Your task to perform on an android device: turn on location history Image 0: 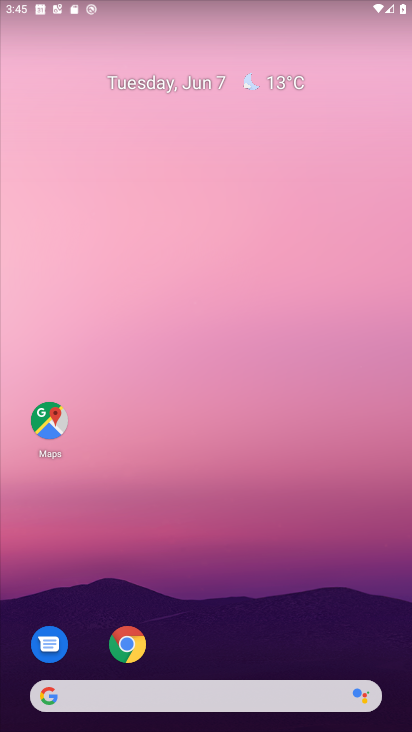
Step 0: drag from (354, 593) to (359, 177)
Your task to perform on an android device: turn on location history Image 1: 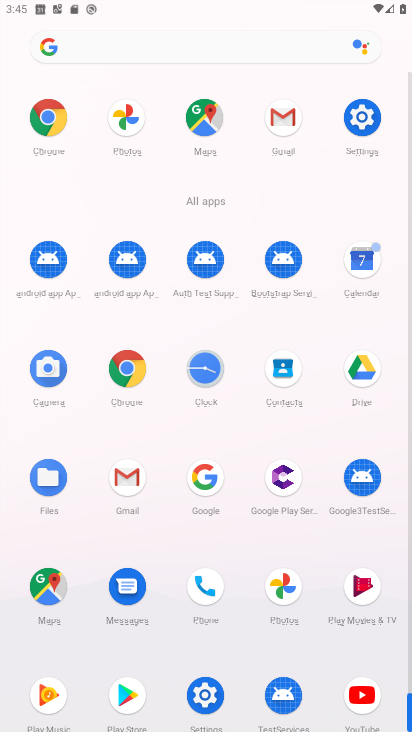
Step 1: click (372, 127)
Your task to perform on an android device: turn on location history Image 2: 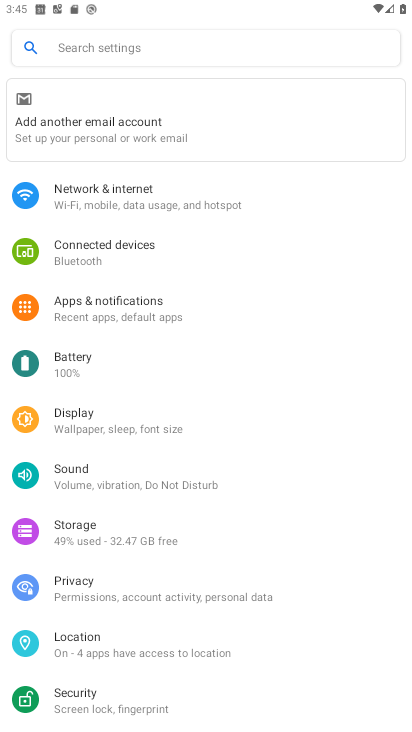
Step 2: drag from (315, 376) to (318, 299)
Your task to perform on an android device: turn on location history Image 3: 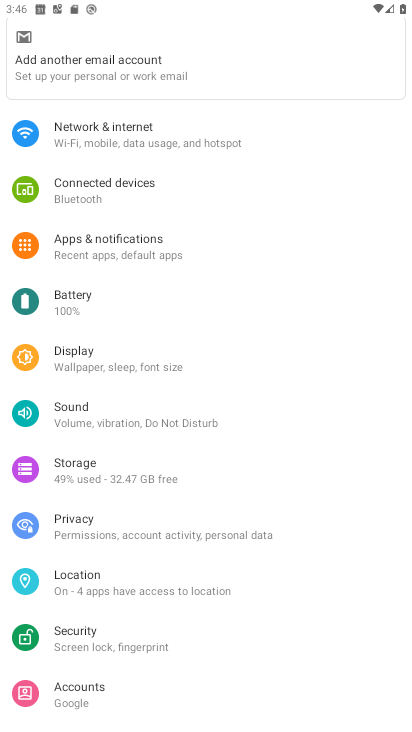
Step 3: drag from (321, 486) to (326, 336)
Your task to perform on an android device: turn on location history Image 4: 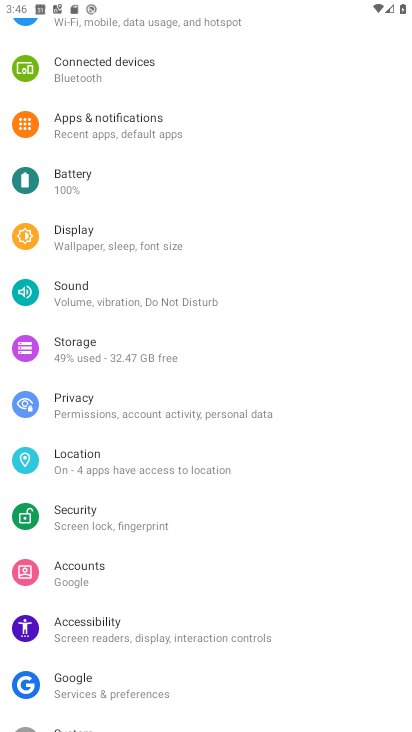
Step 4: drag from (318, 528) to (324, 340)
Your task to perform on an android device: turn on location history Image 5: 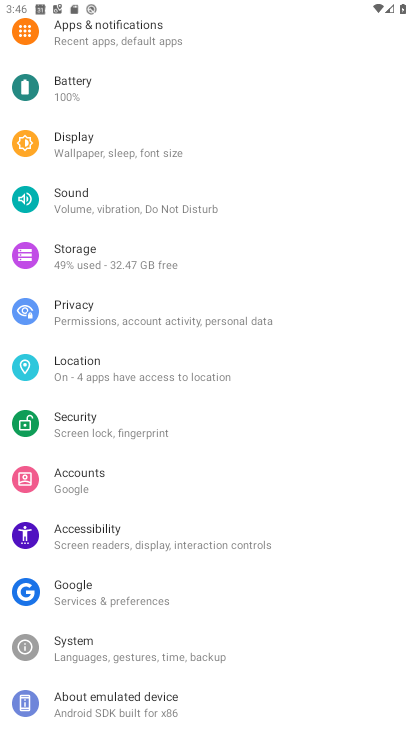
Step 5: drag from (337, 285) to (364, 497)
Your task to perform on an android device: turn on location history Image 6: 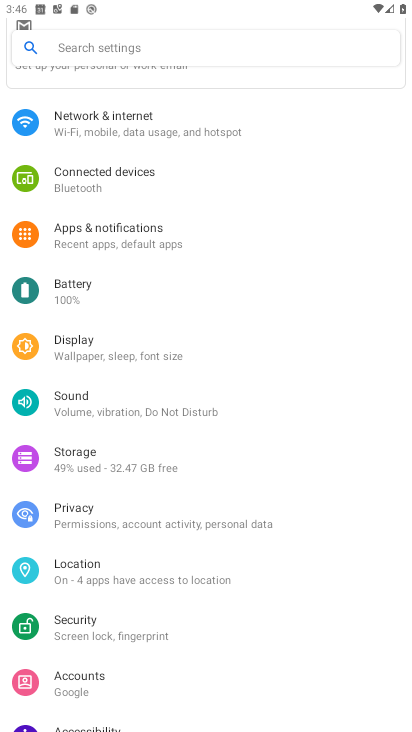
Step 6: drag from (328, 219) to (350, 409)
Your task to perform on an android device: turn on location history Image 7: 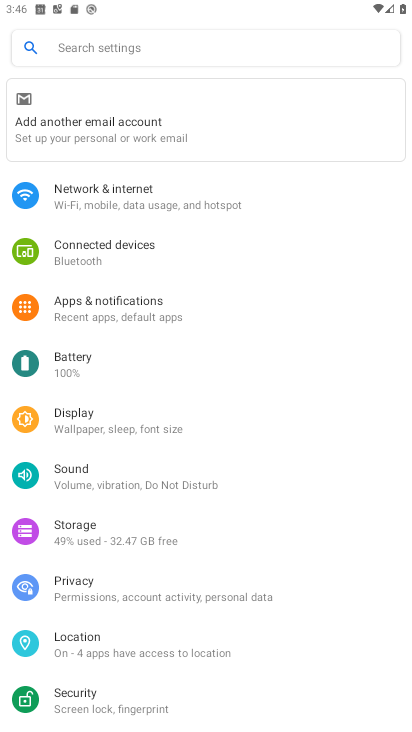
Step 7: drag from (336, 450) to (331, 299)
Your task to perform on an android device: turn on location history Image 8: 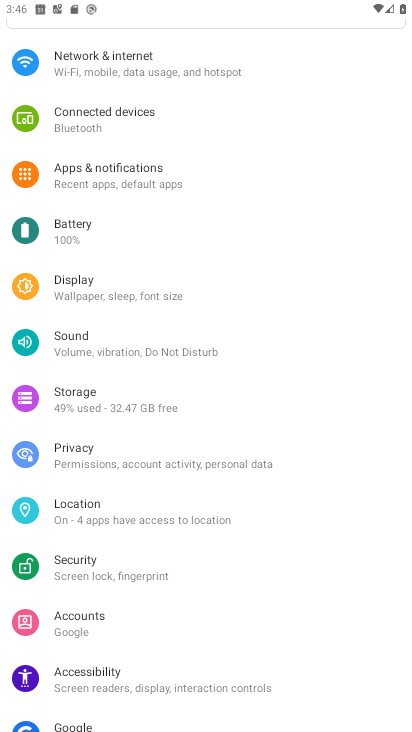
Step 8: drag from (320, 523) to (321, 366)
Your task to perform on an android device: turn on location history Image 9: 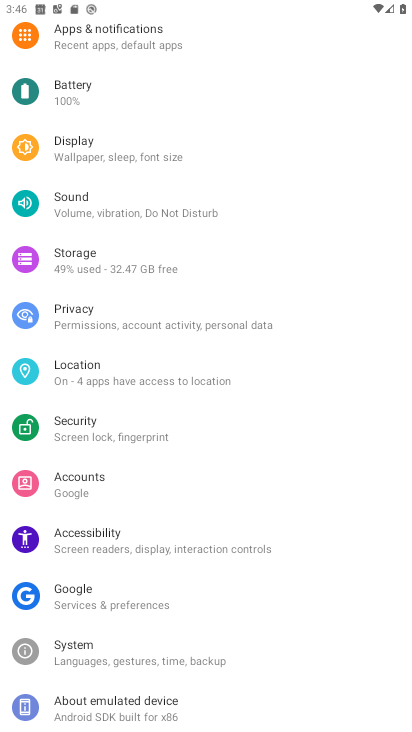
Step 9: click (223, 377)
Your task to perform on an android device: turn on location history Image 10: 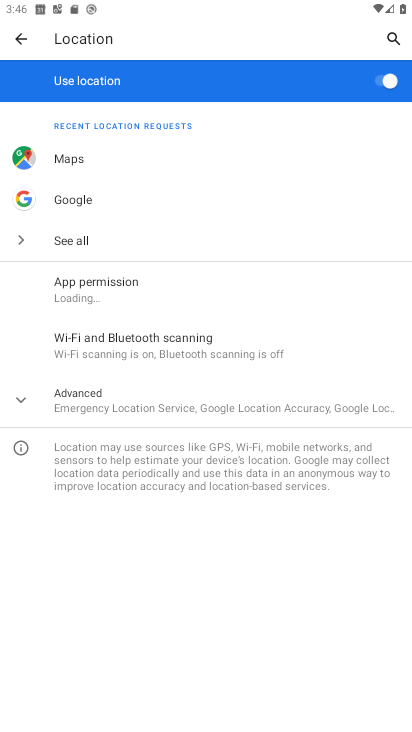
Step 10: drag from (304, 479) to (320, 264)
Your task to perform on an android device: turn on location history Image 11: 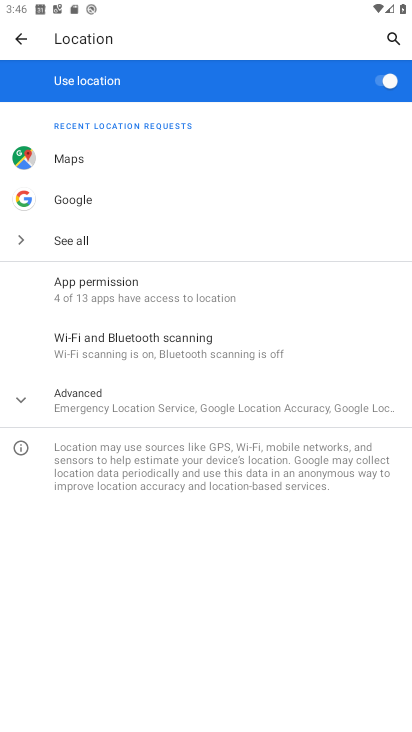
Step 11: click (190, 408)
Your task to perform on an android device: turn on location history Image 12: 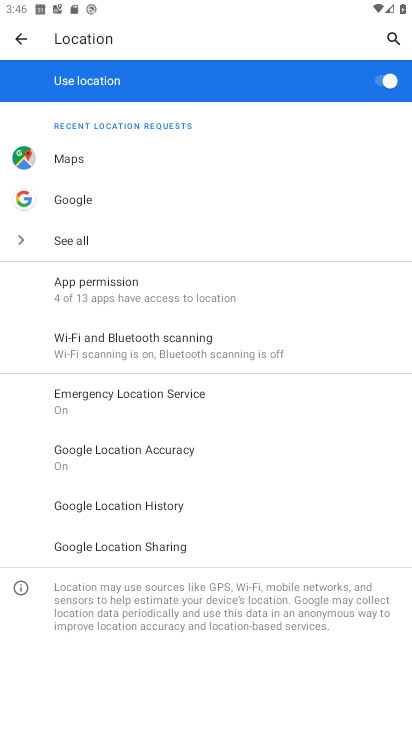
Step 12: click (165, 505)
Your task to perform on an android device: turn on location history Image 13: 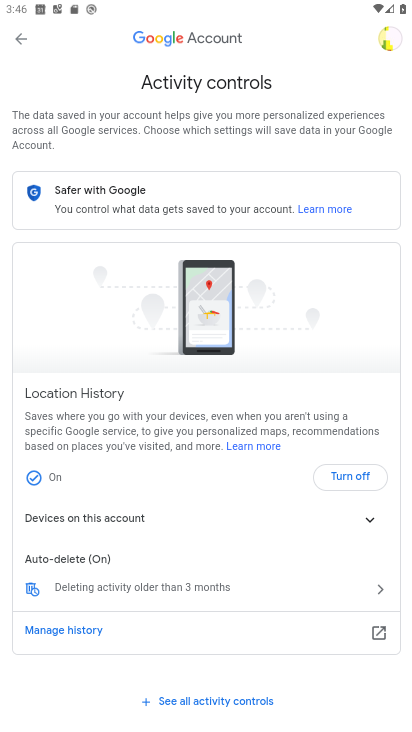
Step 13: task complete